Your task to perform on an android device: When is my next meeting? Image 0: 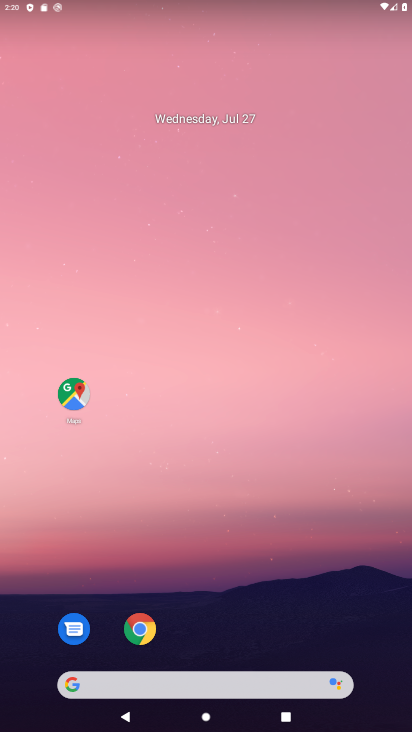
Step 0: click (226, 122)
Your task to perform on an android device: When is my next meeting? Image 1: 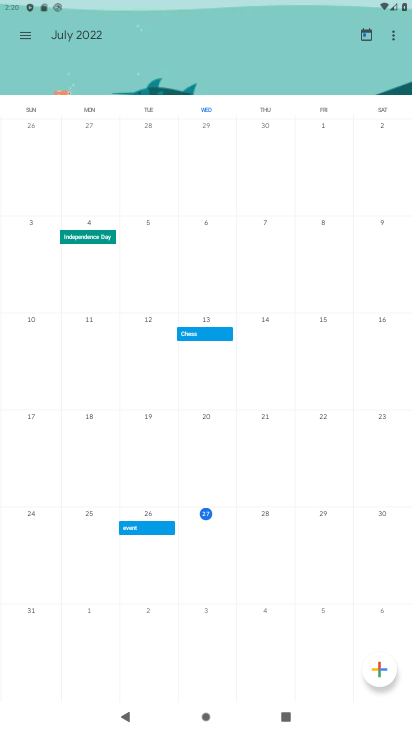
Step 1: task complete